Your task to perform on an android device: check google app version Image 0: 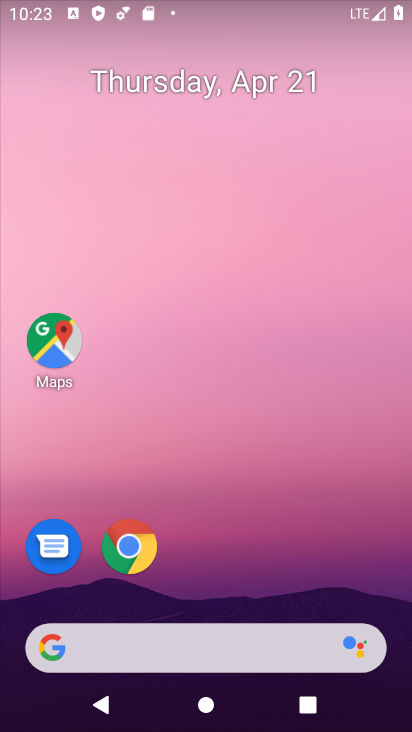
Step 0: click (128, 546)
Your task to perform on an android device: check google app version Image 1: 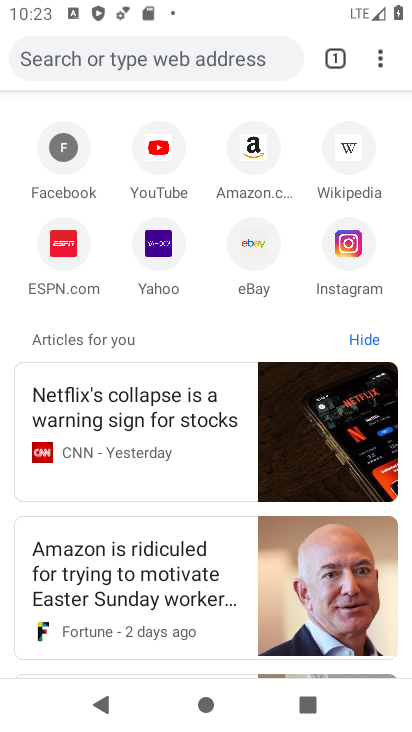
Step 1: click (378, 62)
Your task to perform on an android device: check google app version Image 2: 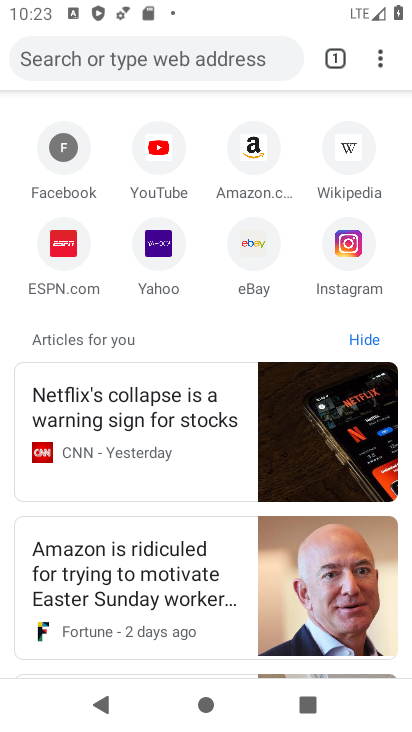
Step 2: click (378, 62)
Your task to perform on an android device: check google app version Image 3: 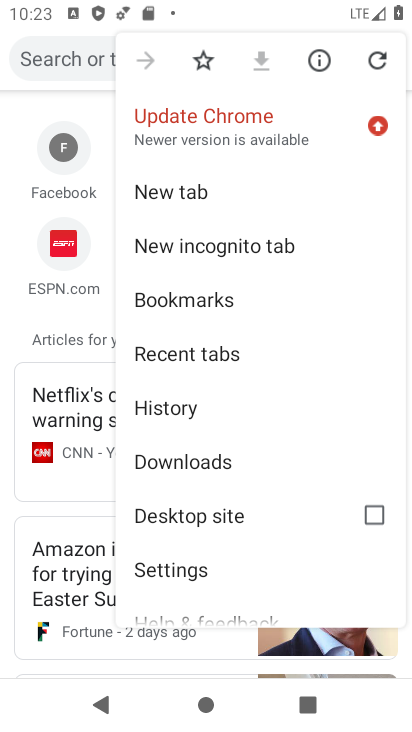
Step 3: click (160, 571)
Your task to perform on an android device: check google app version Image 4: 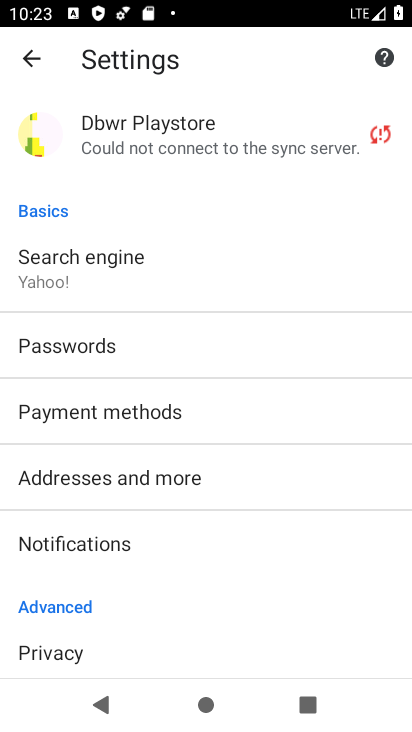
Step 4: drag from (229, 575) to (228, 340)
Your task to perform on an android device: check google app version Image 5: 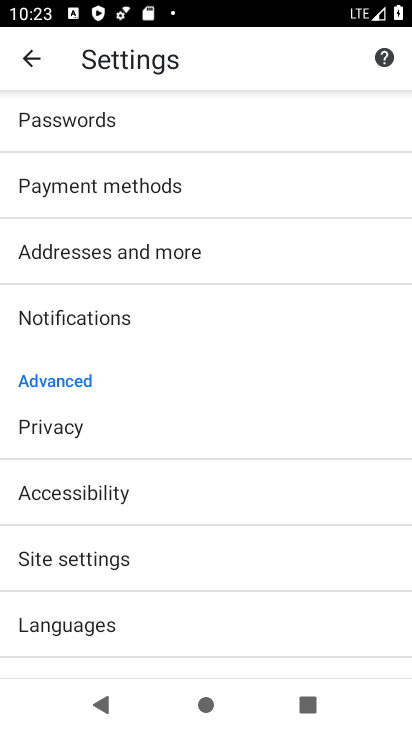
Step 5: drag from (243, 534) to (230, 228)
Your task to perform on an android device: check google app version Image 6: 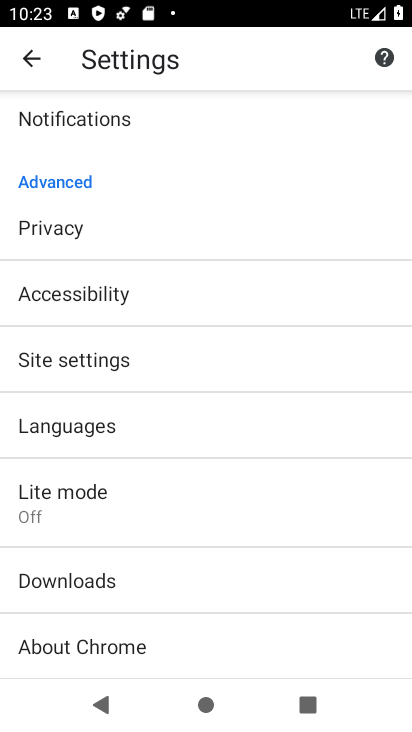
Step 6: click (94, 651)
Your task to perform on an android device: check google app version Image 7: 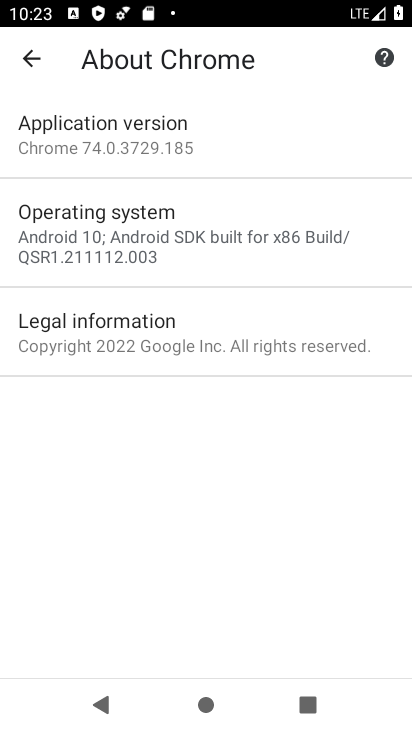
Step 7: click (86, 129)
Your task to perform on an android device: check google app version Image 8: 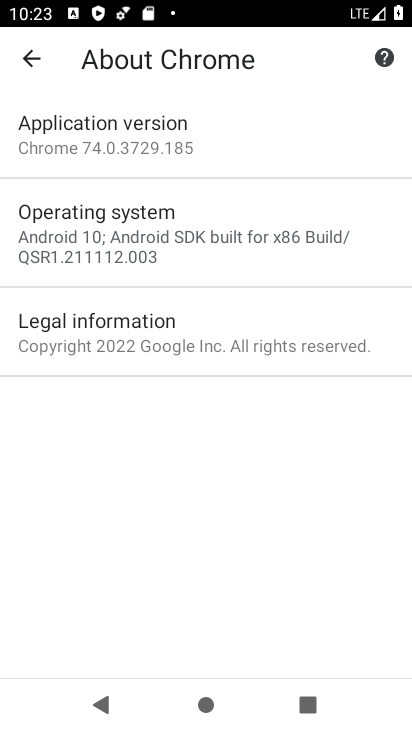
Step 8: task complete